Your task to perform on an android device: What is the recent news? Image 0: 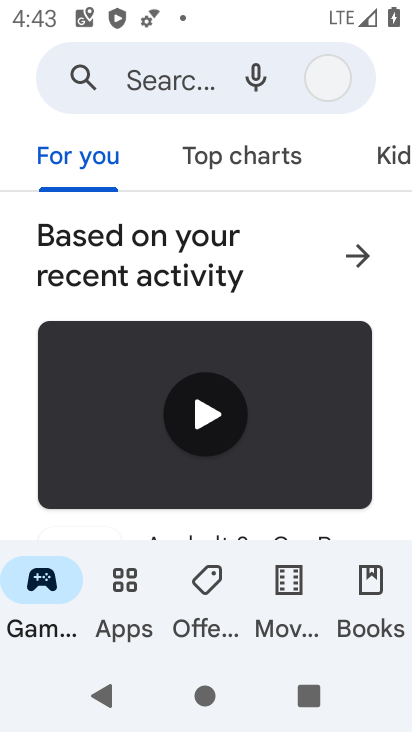
Step 0: press home button
Your task to perform on an android device: What is the recent news? Image 1: 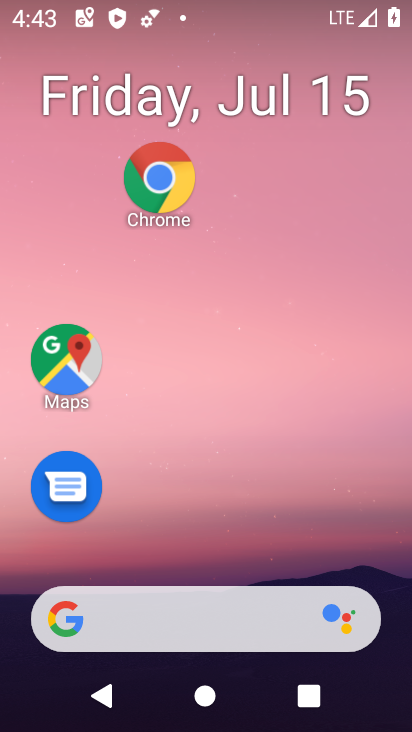
Step 1: click (139, 611)
Your task to perform on an android device: What is the recent news? Image 2: 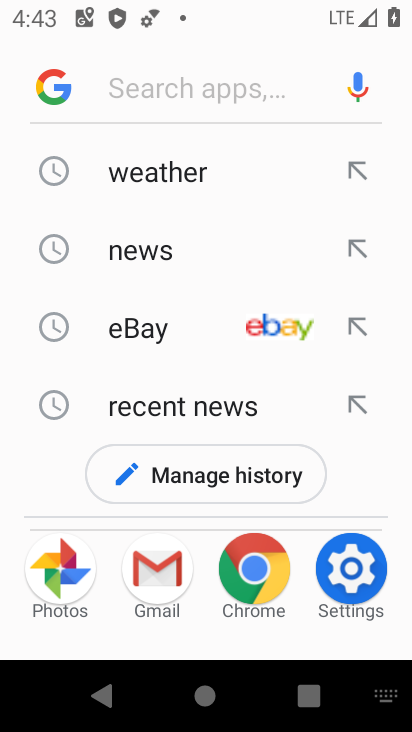
Step 2: click (170, 419)
Your task to perform on an android device: What is the recent news? Image 3: 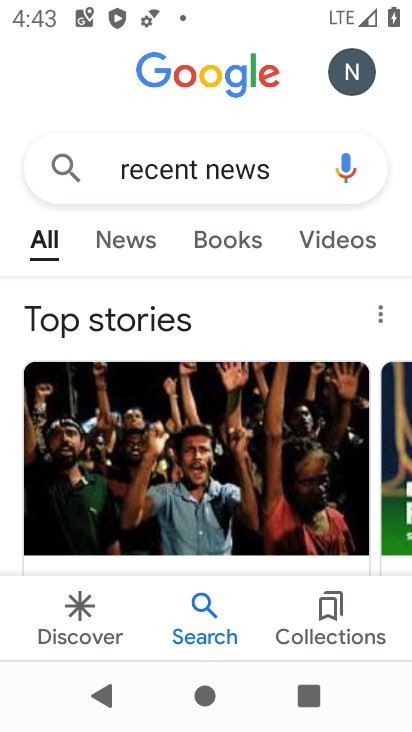
Step 3: task complete